Your task to perform on an android device: Search for vegetarian restaurants on Maps Image 0: 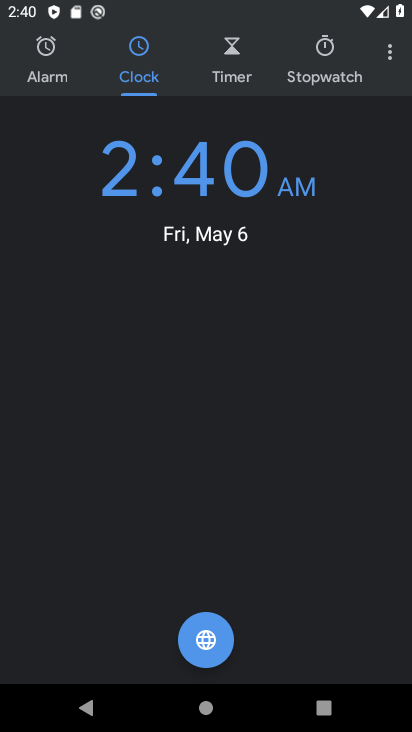
Step 0: press back button
Your task to perform on an android device: Search for vegetarian restaurants on Maps Image 1: 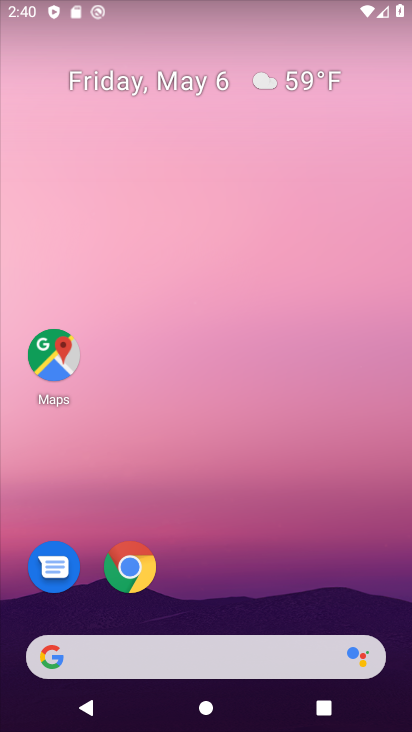
Step 1: click (58, 334)
Your task to perform on an android device: Search for vegetarian restaurants on Maps Image 2: 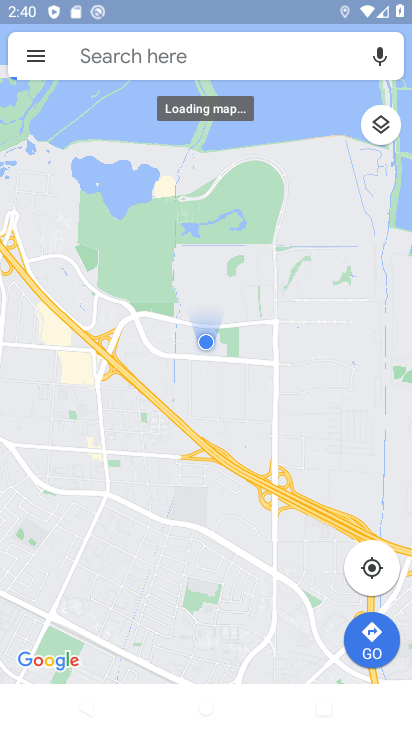
Step 2: click (157, 60)
Your task to perform on an android device: Search for vegetarian restaurants on Maps Image 3: 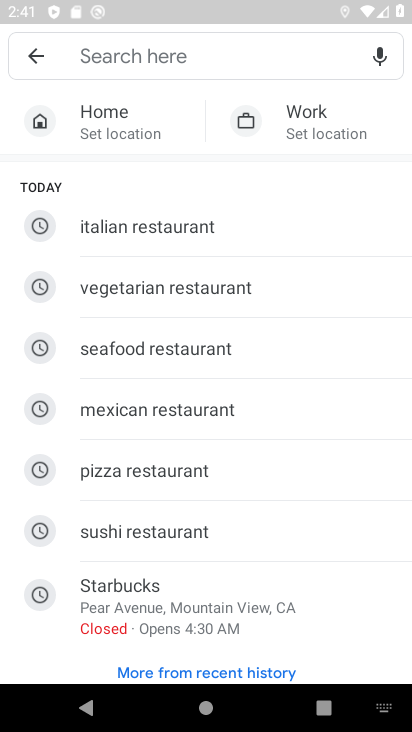
Step 3: click (263, 301)
Your task to perform on an android device: Search for vegetarian restaurants on Maps Image 4: 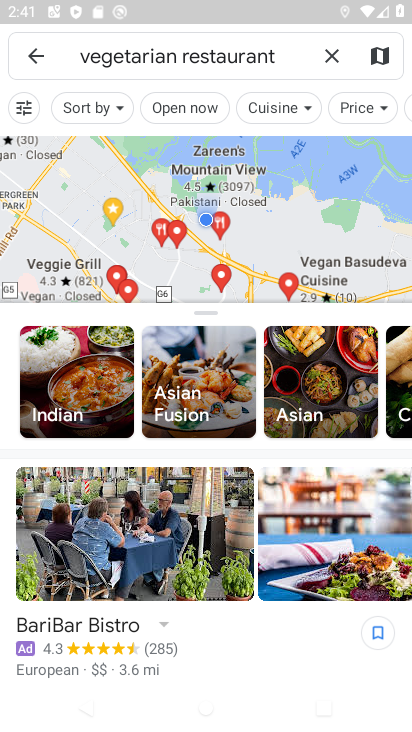
Step 4: task complete